Your task to perform on an android device: turn on showing notifications on the lock screen Image 0: 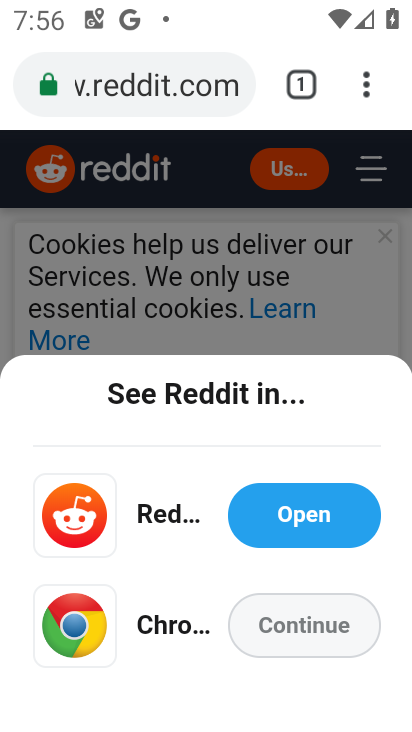
Step 0: press home button
Your task to perform on an android device: turn on showing notifications on the lock screen Image 1: 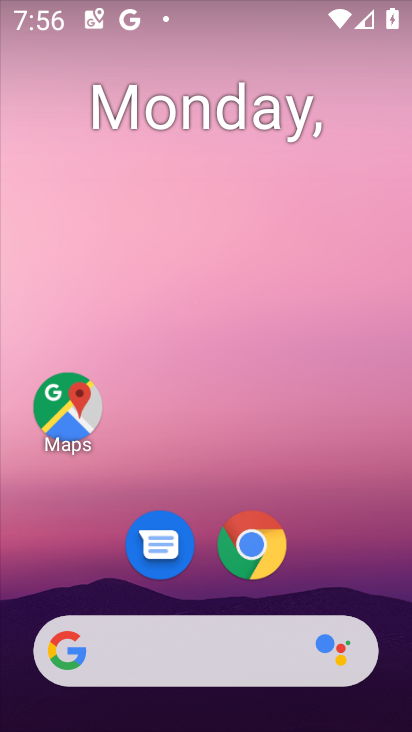
Step 1: drag from (175, 658) to (298, 115)
Your task to perform on an android device: turn on showing notifications on the lock screen Image 2: 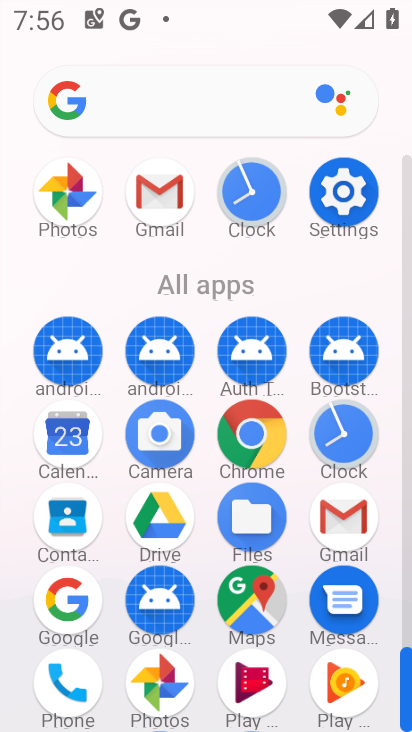
Step 2: click (346, 210)
Your task to perform on an android device: turn on showing notifications on the lock screen Image 3: 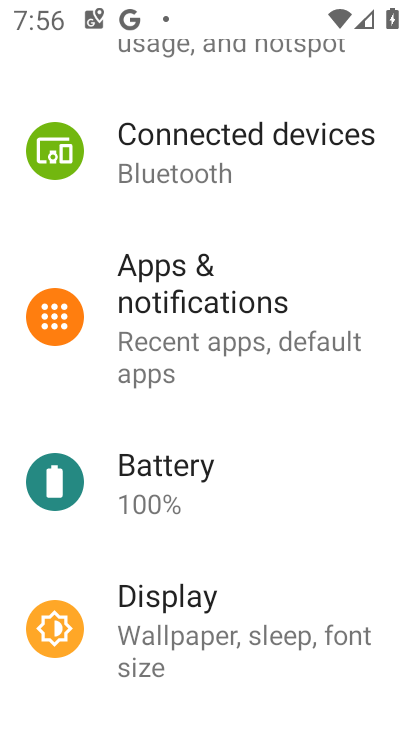
Step 3: drag from (325, 228) to (340, 443)
Your task to perform on an android device: turn on showing notifications on the lock screen Image 4: 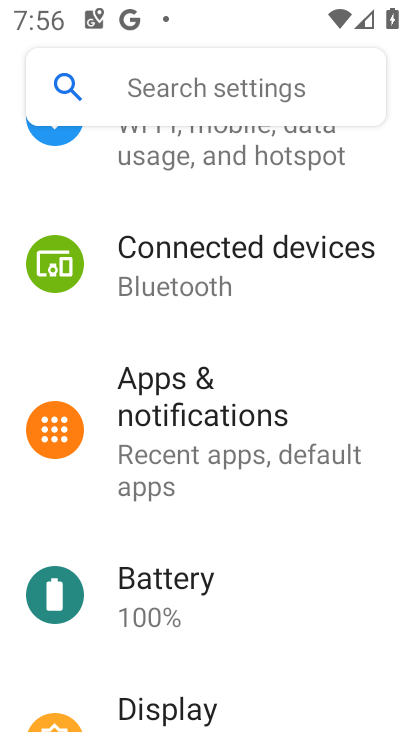
Step 4: click (191, 416)
Your task to perform on an android device: turn on showing notifications on the lock screen Image 5: 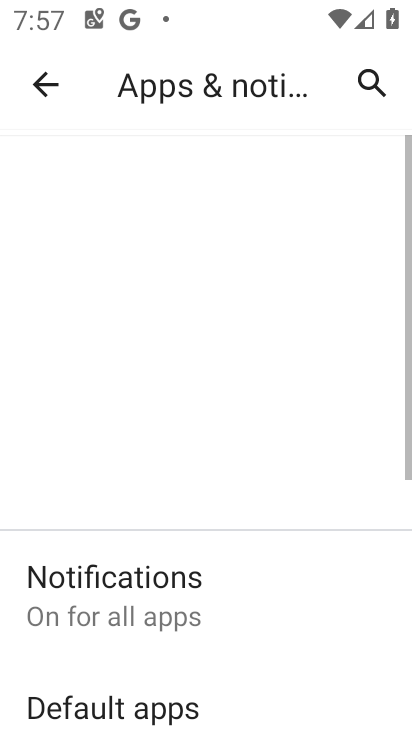
Step 5: drag from (225, 619) to (338, 189)
Your task to perform on an android device: turn on showing notifications on the lock screen Image 6: 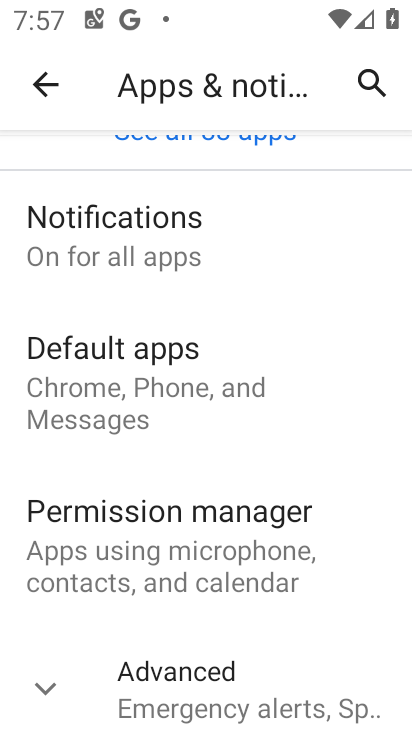
Step 6: click (173, 249)
Your task to perform on an android device: turn on showing notifications on the lock screen Image 7: 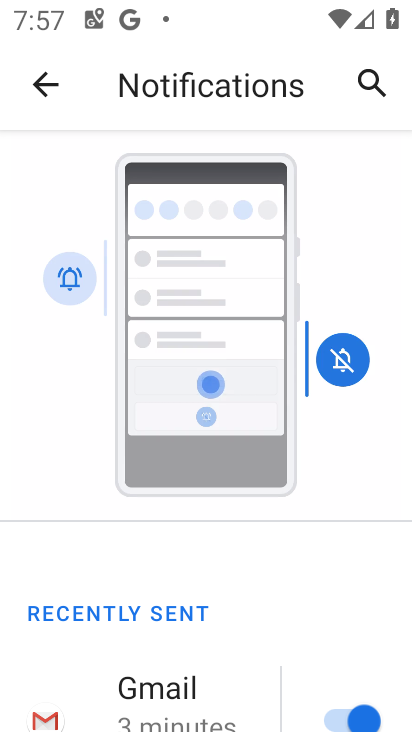
Step 7: drag from (249, 575) to (336, 148)
Your task to perform on an android device: turn on showing notifications on the lock screen Image 8: 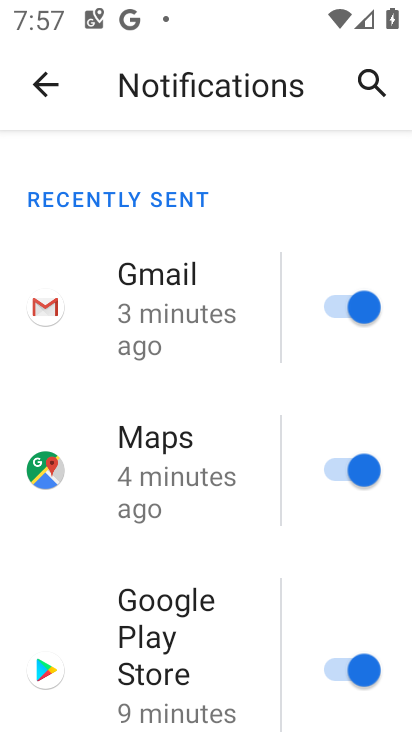
Step 8: drag from (245, 677) to (308, 57)
Your task to perform on an android device: turn on showing notifications on the lock screen Image 9: 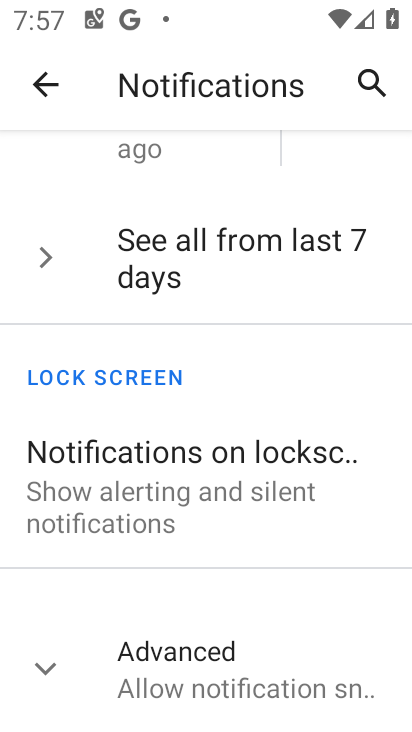
Step 9: click (197, 467)
Your task to perform on an android device: turn on showing notifications on the lock screen Image 10: 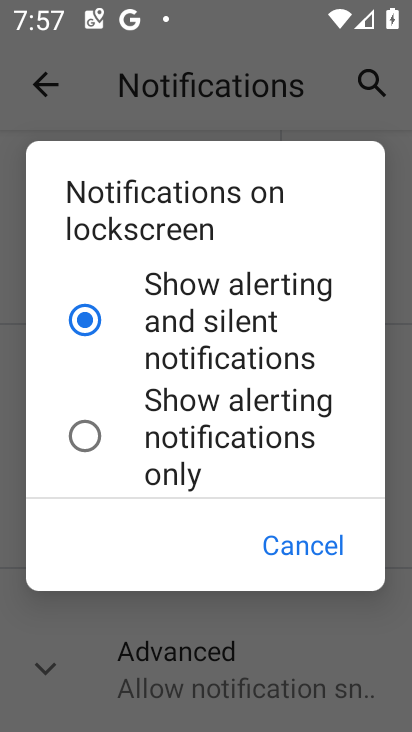
Step 10: task complete